Your task to perform on an android device: Open Chrome and go to the settings page Image 0: 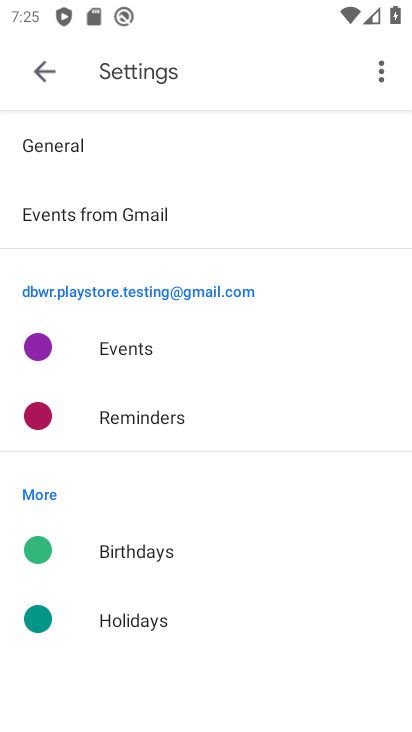
Step 0: press home button
Your task to perform on an android device: Open Chrome and go to the settings page Image 1: 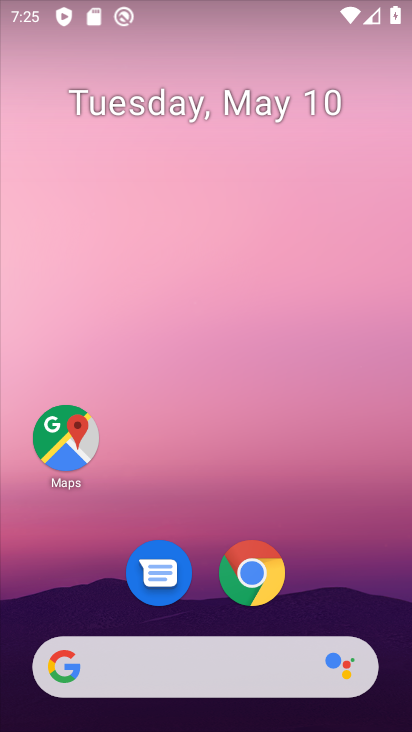
Step 1: drag from (344, 581) to (340, 210)
Your task to perform on an android device: Open Chrome and go to the settings page Image 2: 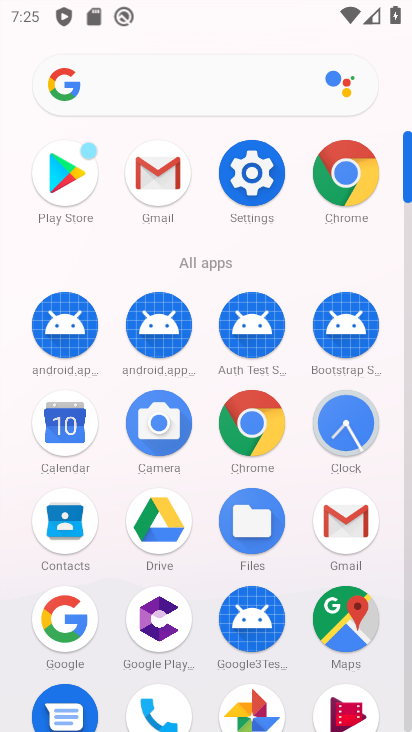
Step 2: click (252, 441)
Your task to perform on an android device: Open Chrome and go to the settings page Image 3: 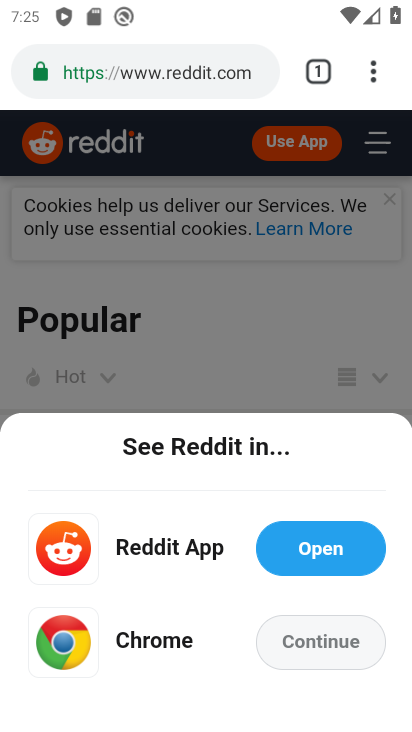
Step 3: task complete